Your task to perform on an android device: Go to internet settings Image 0: 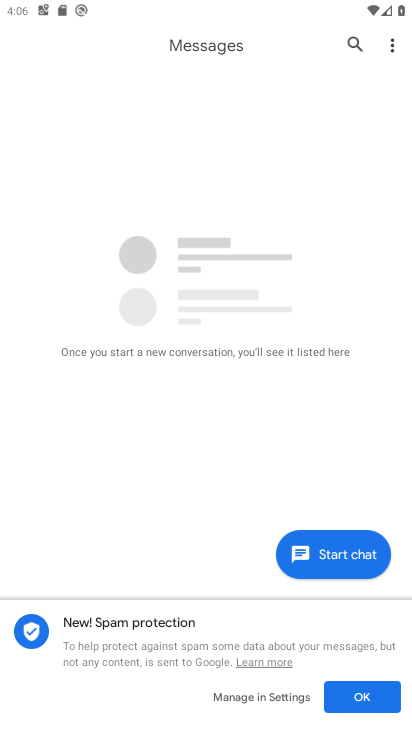
Step 0: press home button
Your task to perform on an android device: Go to internet settings Image 1: 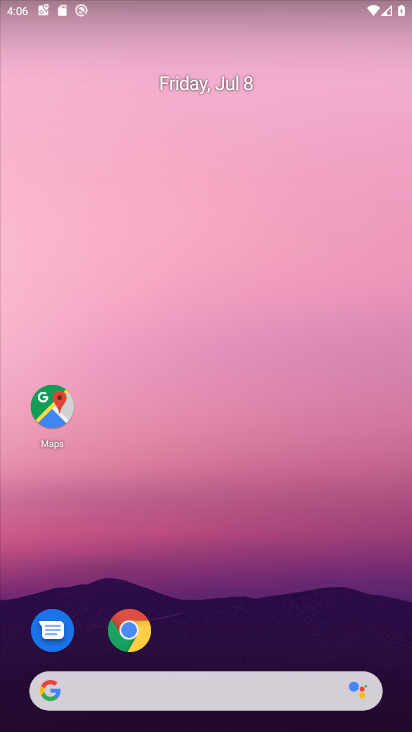
Step 1: drag from (273, 632) to (228, 90)
Your task to perform on an android device: Go to internet settings Image 2: 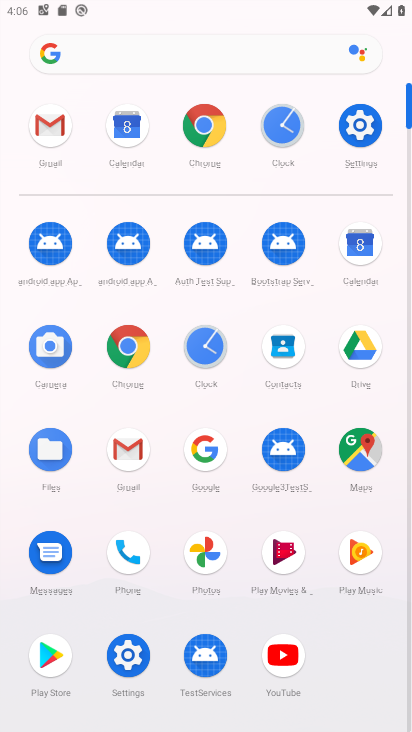
Step 2: click (373, 123)
Your task to perform on an android device: Go to internet settings Image 3: 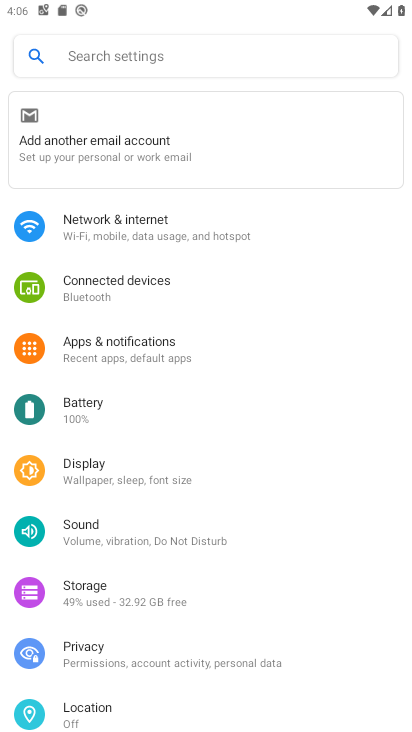
Step 3: click (170, 229)
Your task to perform on an android device: Go to internet settings Image 4: 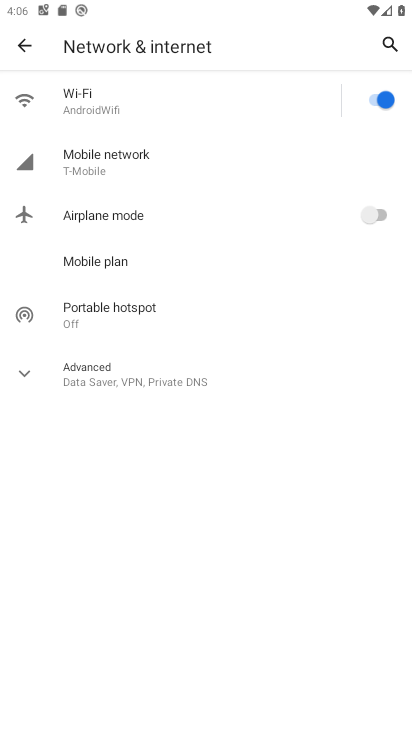
Step 4: click (123, 371)
Your task to perform on an android device: Go to internet settings Image 5: 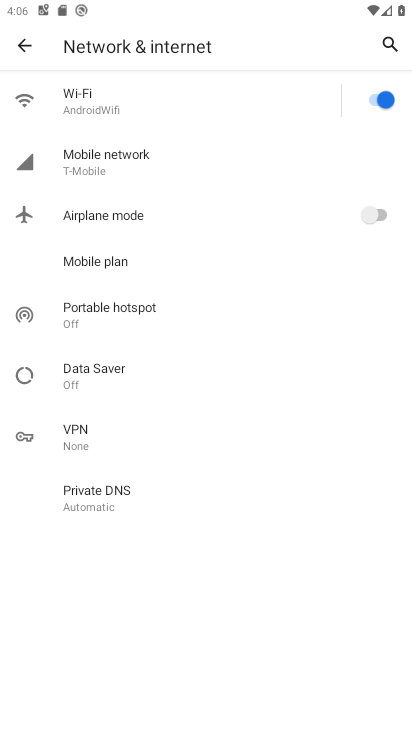
Step 5: task complete